Your task to perform on an android device: check data usage Image 0: 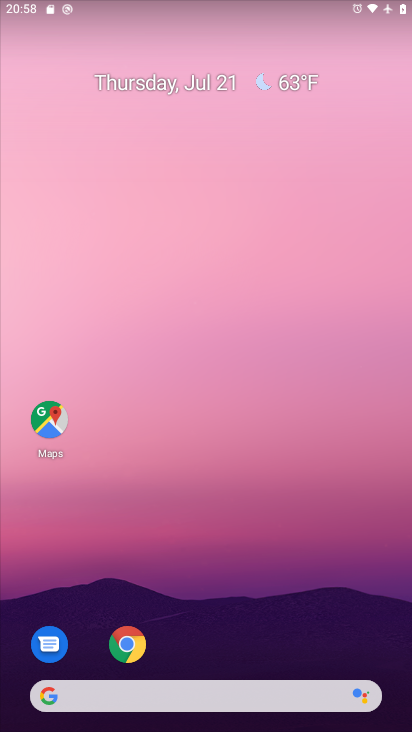
Step 0: drag from (219, 645) to (213, 185)
Your task to perform on an android device: check data usage Image 1: 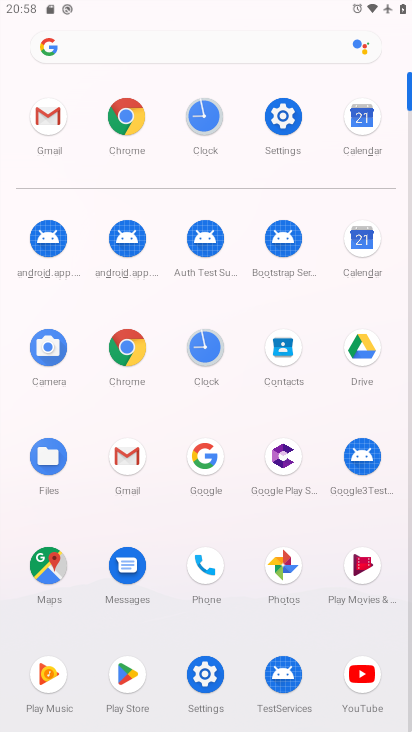
Step 1: click (295, 116)
Your task to perform on an android device: check data usage Image 2: 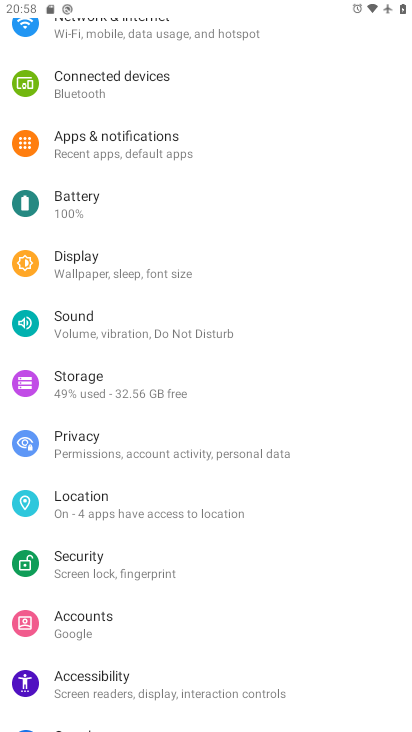
Step 2: drag from (115, 106) to (147, 588)
Your task to perform on an android device: check data usage Image 3: 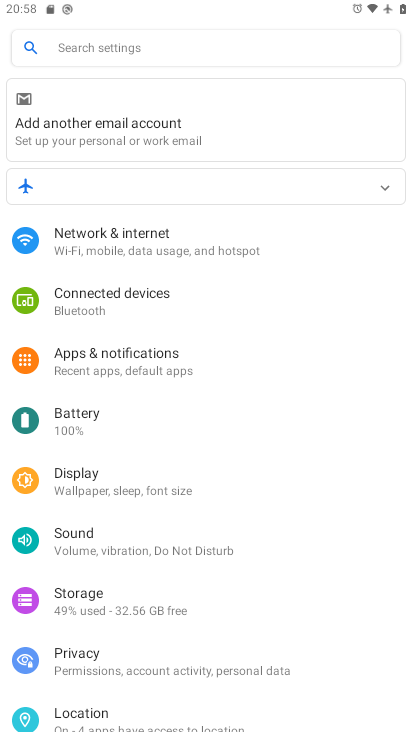
Step 3: click (116, 250)
Your task to perform on an android device: check data usage Image 4: 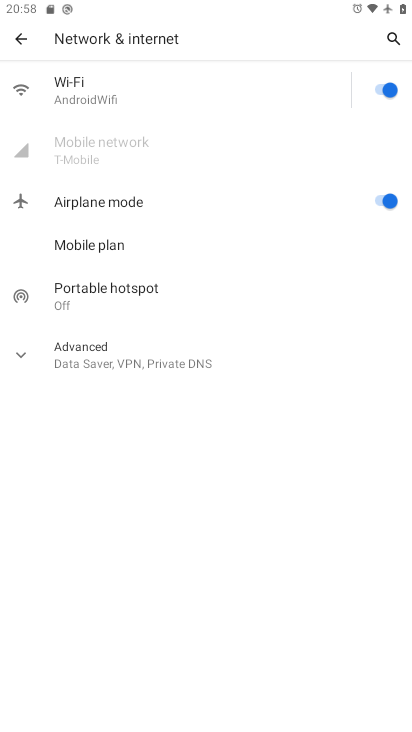
Step 4: click (133, 149)
Your task to perform on an android device: check data usage Image 5: 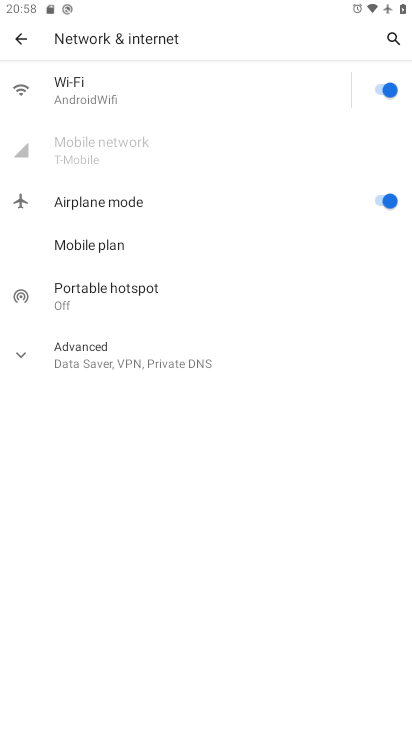
Step 5: task complete